Your task to perform on an android device: refresh tabs in the chrome app Image 0: 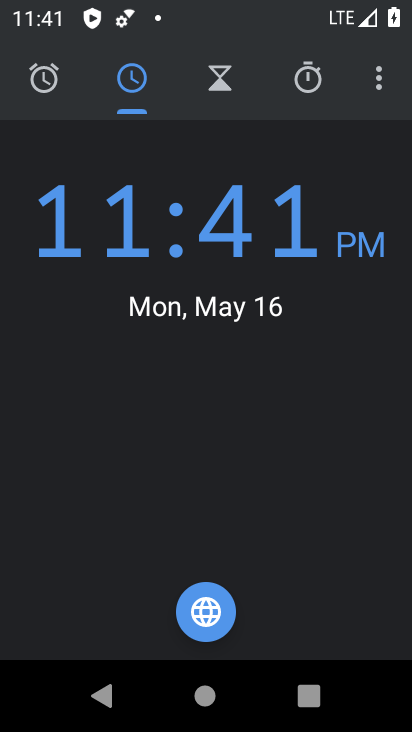
Step 0: press home button
Your task to perform on an android device: refresh tabs in the chrome app Image 1: 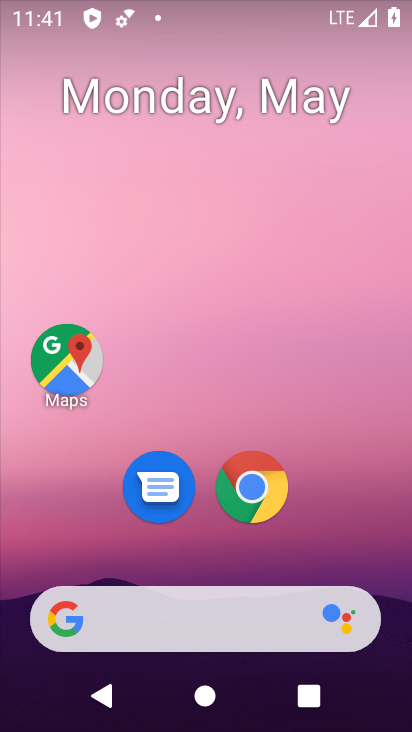
Step 1: click (243, 485)
Your task to perform on an android device: refresh tabs in the chrome app Image 2: 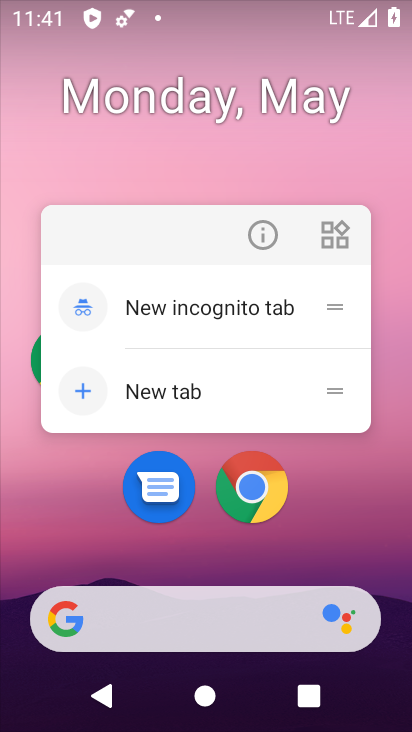
Step 2: click (234, 475)
Your task to perform on an android device: refresh tabs in the chrome app Image 3: 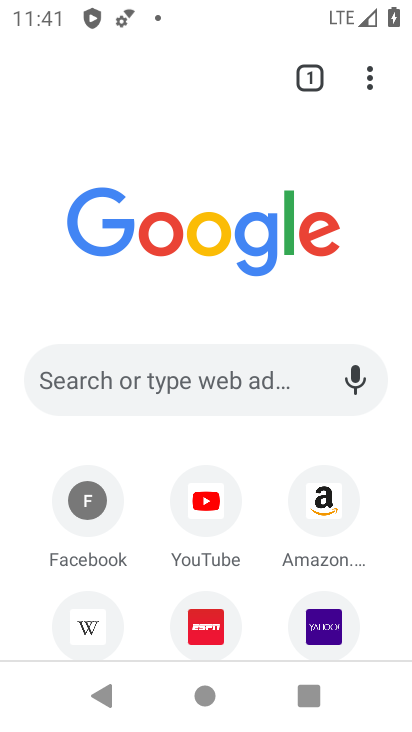
Step 3: click (366, 76)
Your task to perform on an android device: refresh tabs in the chrome app Image 4: 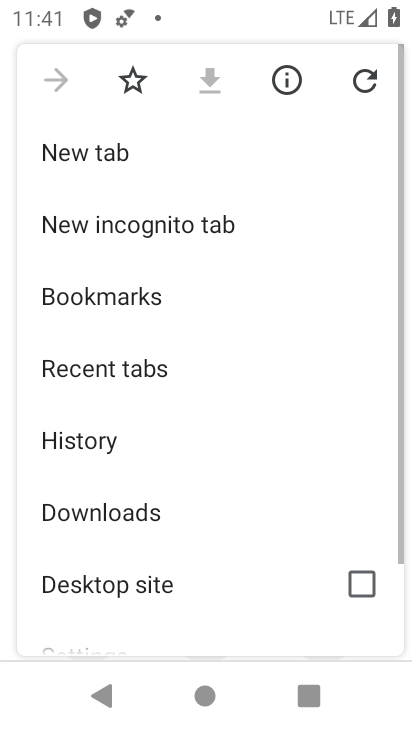
Step 4: click (375, 81)
Your task to perform on an android device: refresh tabs in the chrome app Image 5: 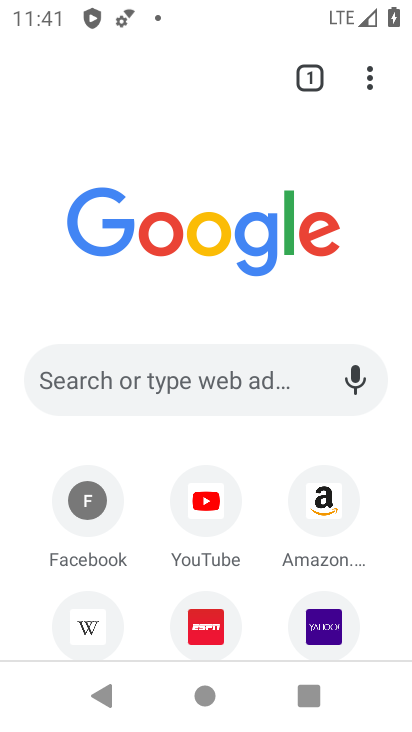
Step 5: task complete